Your task to perform on an android device: Toggle the flashlight Image 0: 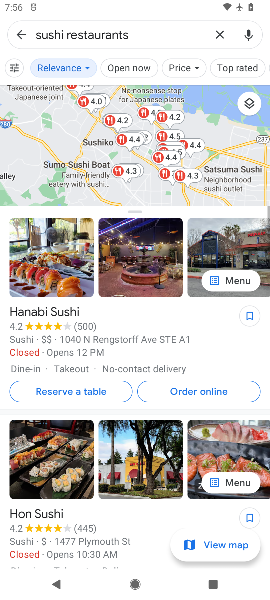
Step 0: press home button
Your task to perform on an android device: Toggle the flashlight Image 1: 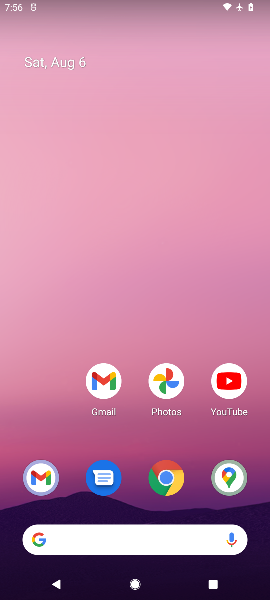
Step 1: drag from (163, 2) to (99, 575)
Your task to perform on an android device: Toggle the flashlight Image 2: 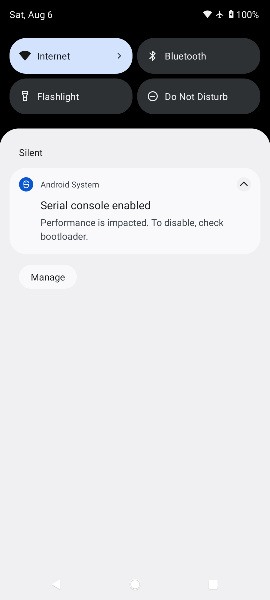
Step 2: click (87, 94)
Your task to perform on an android device: Toggle the flashlight Image 3: 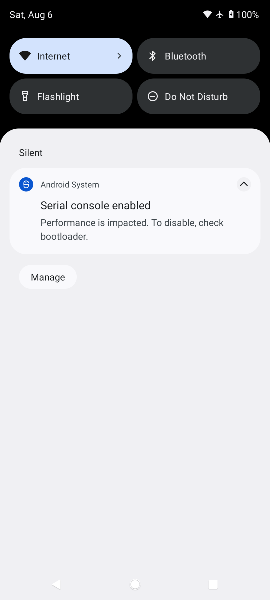
Step 3: click (70, 102)
Your task to perform on an android device: Toggle the flashlight Image 4: 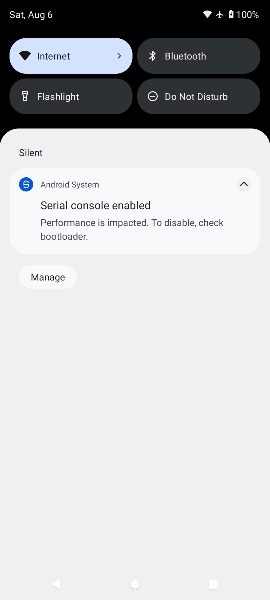
Step 4: task complete